Your task to perform on an android device: What's on my calendar tomorrow? Image 0: 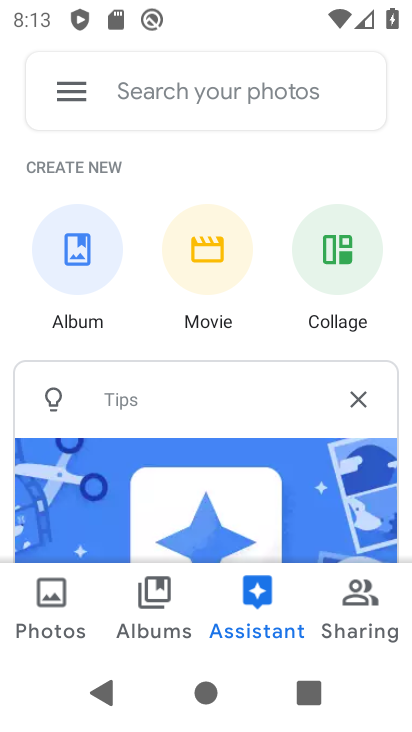
Step 0: press home button
Your task to perform on an android device: What's on my calendar tomorrow? Image 1: 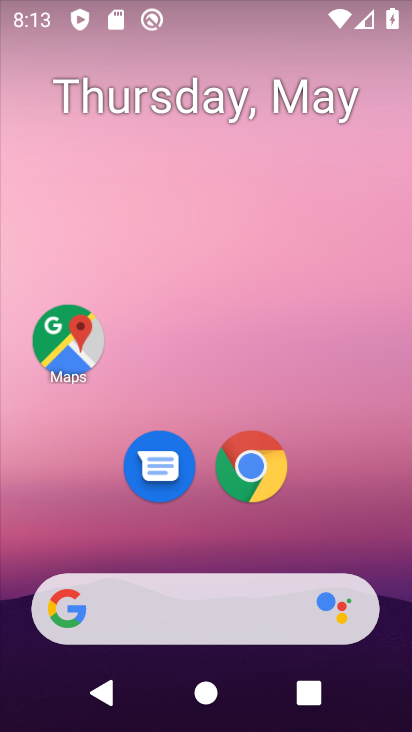
Step 1: drag from (388, 556) to (317, 184)
Your task to perform on an android device: What's on my calendar tomorrow? Image 2: 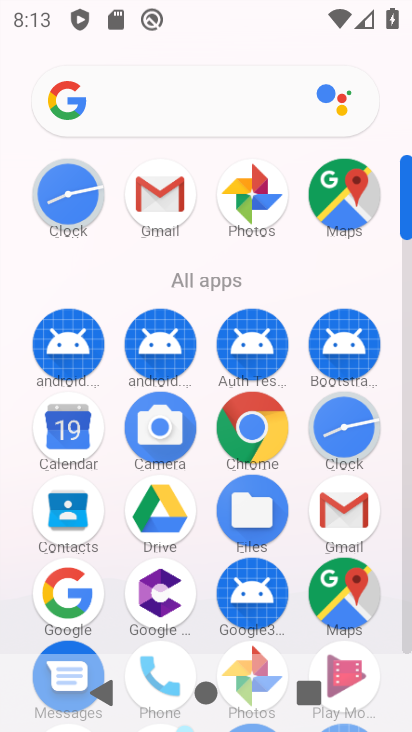
Step 2: click (73, 439)
Your task to perform on an android device: What's on my calendar tomorrow? Image 3: 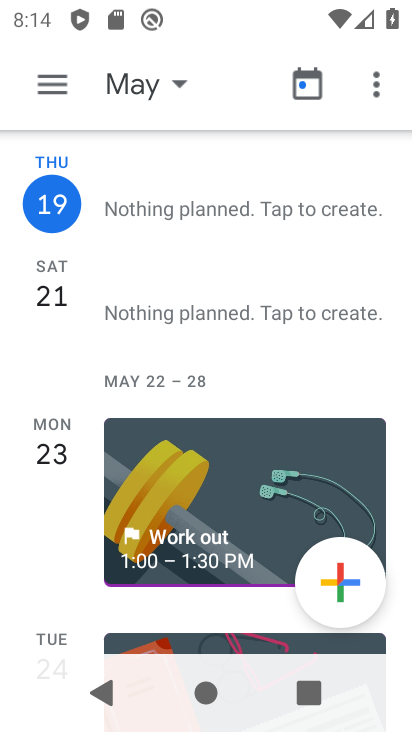
Step 3: click (151, 348)
Your task to perform on an android device: What's on my calendar tomorrow? Image 4: 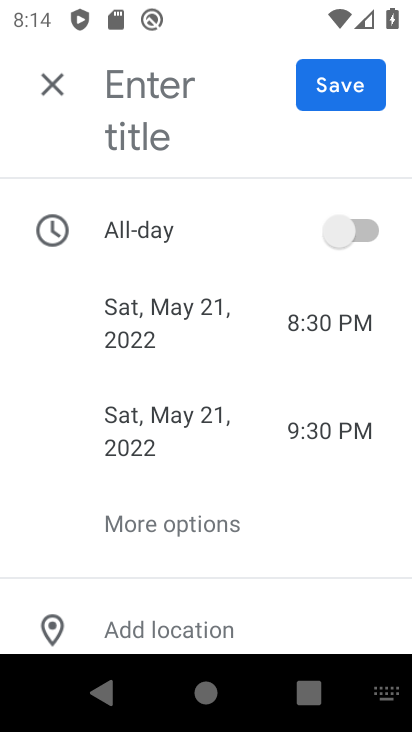
Step 4: click (56, 71)
Your task to perform on an android device: What's on my calendar tomorrow? Image 5: 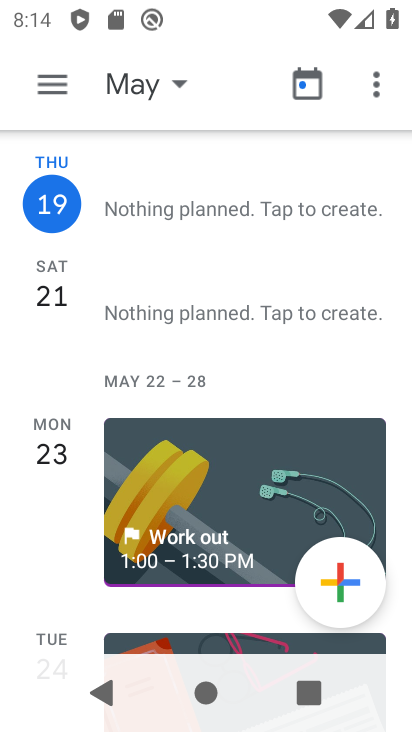
Step 5: click (130, 83)
Your task to perform on an android device: What's on my calendar tomorrow? Image 6: 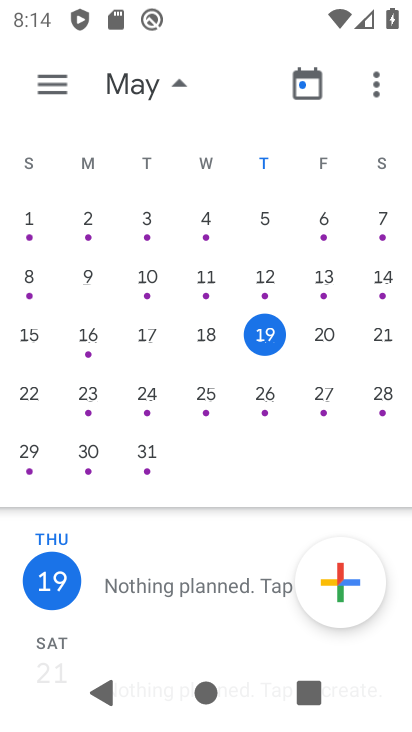
Step 6: click (378, 343)
Your task to perform on an android device: What's on my calendar tomorrow? Image 7: 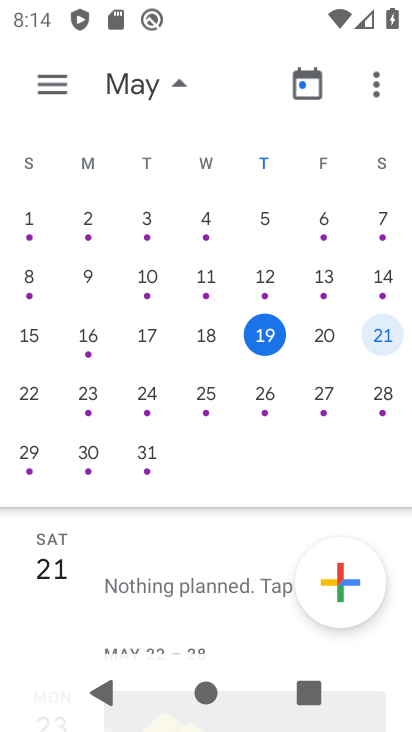
Step 7: click (164, 90)
Your task to perform on an android device: What's on my calendar tomorrow? Image 8: 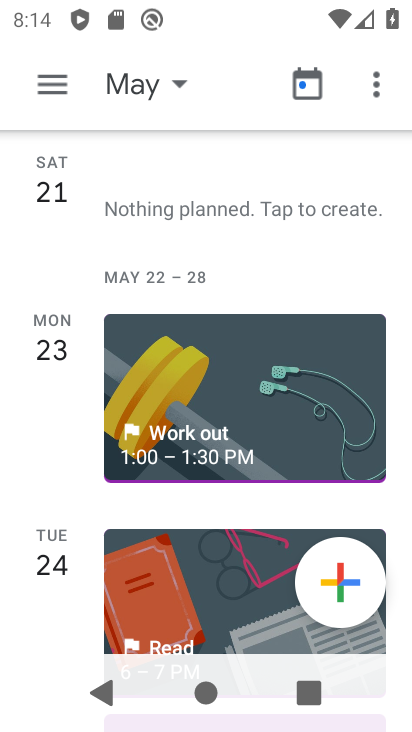
Step 8: task complete